Your task to perform on an android device: toggle sleep mode Image 0: 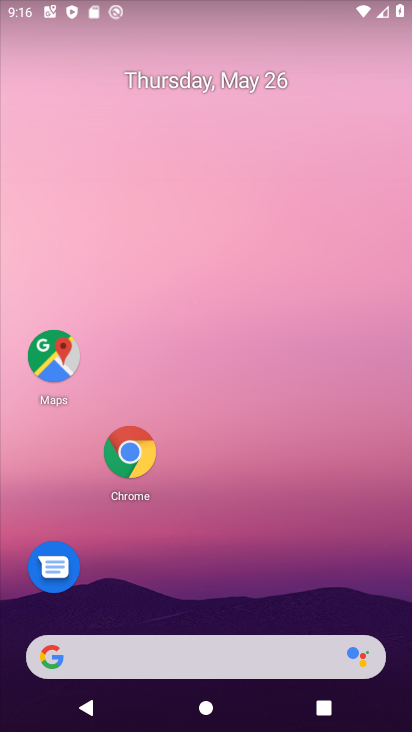
Step 0: drag from (174, 609) to (364, 116)
Your task to perform on an android device: toggle sleep mode Image 1: 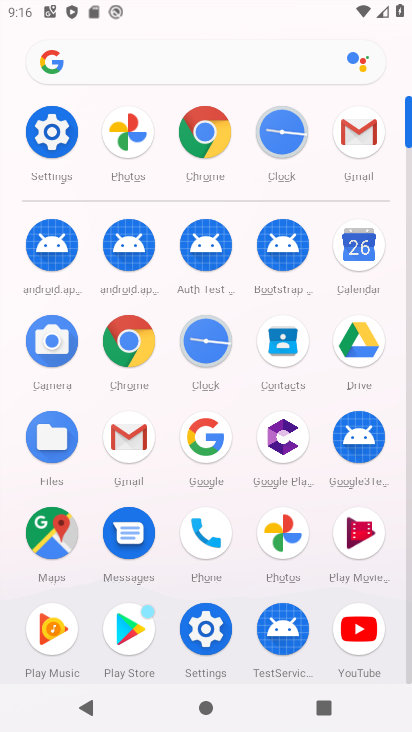
Step 1: click (51, 135)
Your task to perform on an android device: toggle sleep mode Image 2: 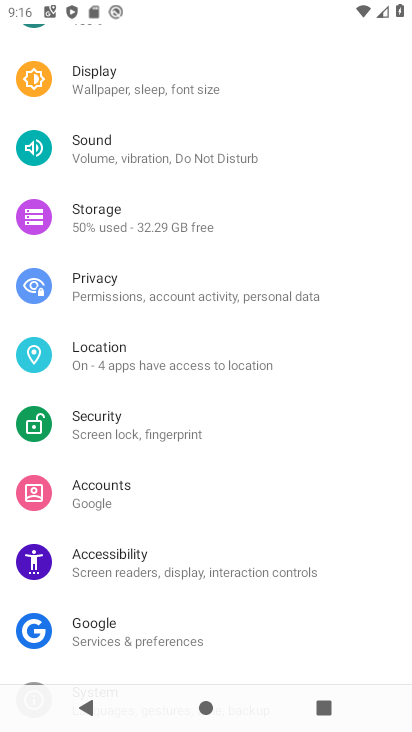
Step 2: click (139, 75)
Your task to perform on an android device: toggle sleep mode Image 3: 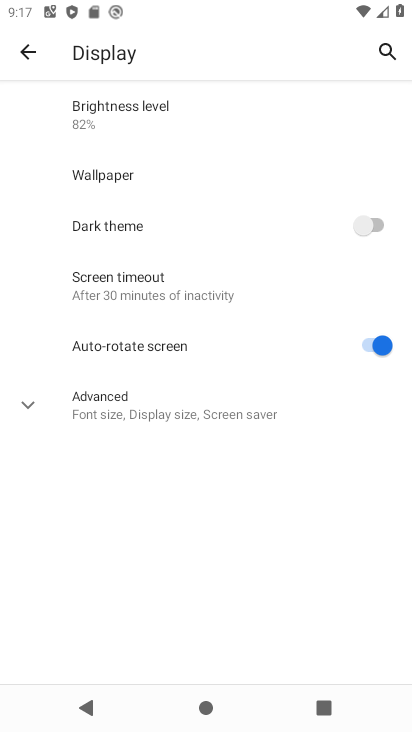
Step 3: task complete